Your task to perform on an android device: check storage Image 0: 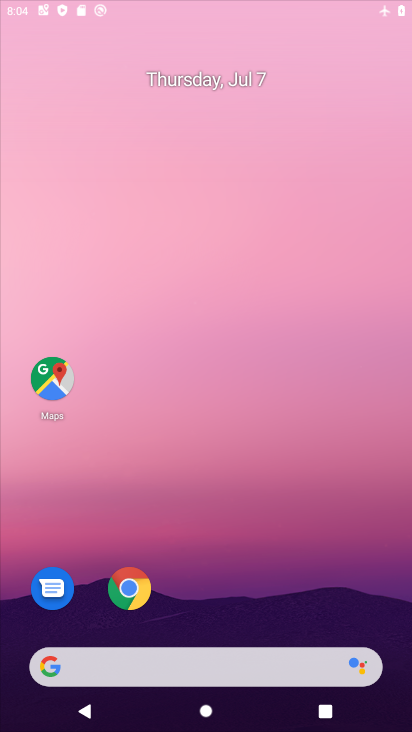
Step 0: drag from (288, 511) to (269, 71)
Your task to perform on an android device: check storage Image 1: 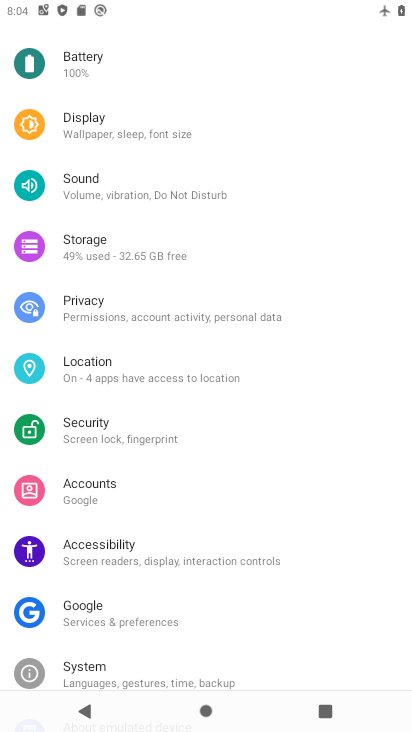
Step 1: press home button
Your task to perform on an android device: check storage Image 2: 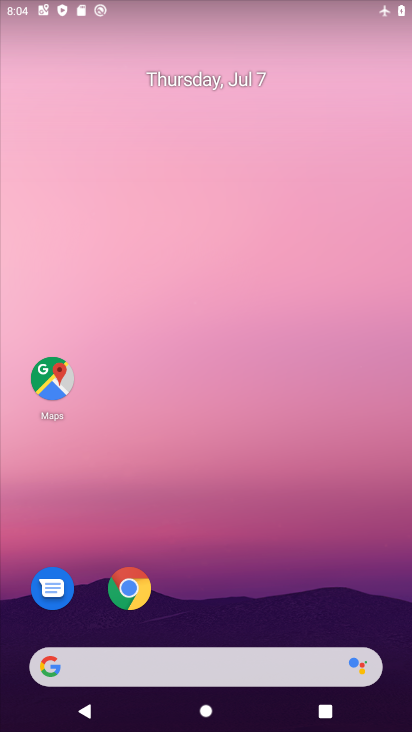
Step 2: drag from (274, 606) to (246, 150)
Your task to perform on an android device: check storage Image 3: 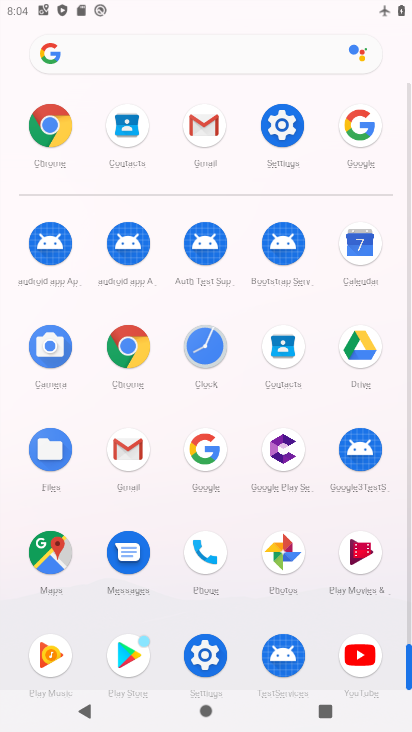
Step 3: click (291, 139)
Your task to perform on an android device: check storage Image 4: 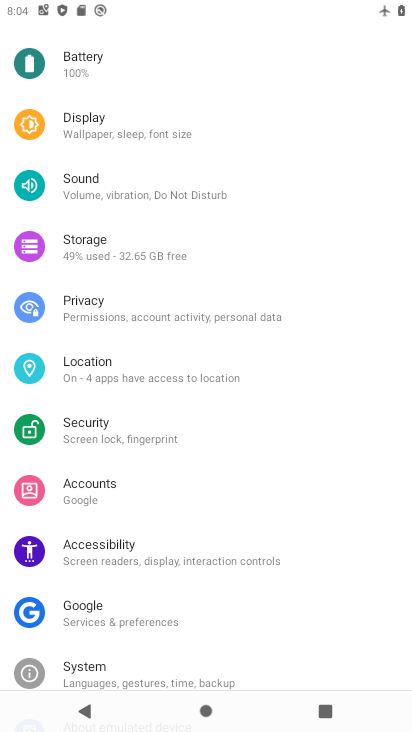
Step 4: click (142, 257)
Your task to perform on an android device: check storage Image 5: 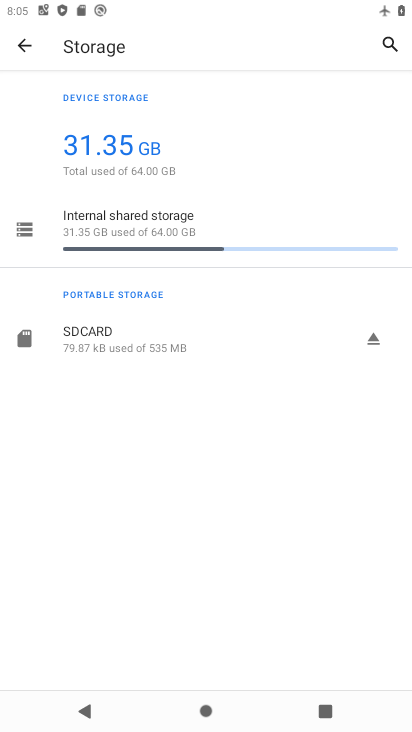
Step 5: task complete